Your task to perform on an android device: Open the calendar and show me this week's events? Image 0: 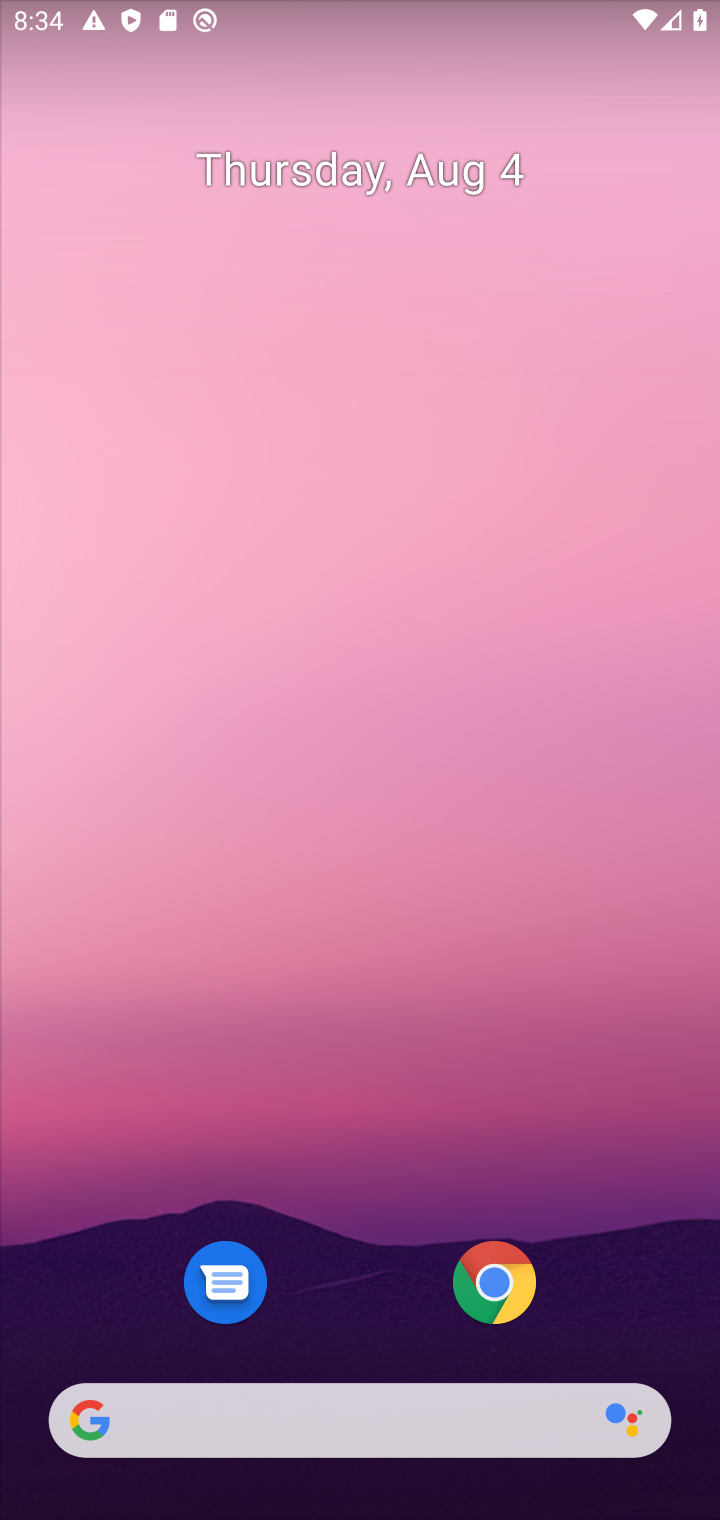
Step 0: drag from (662, 1227) to (568, 514)
Your task to perform on an android device: Open the calendar and show me this week's events? Image 1: 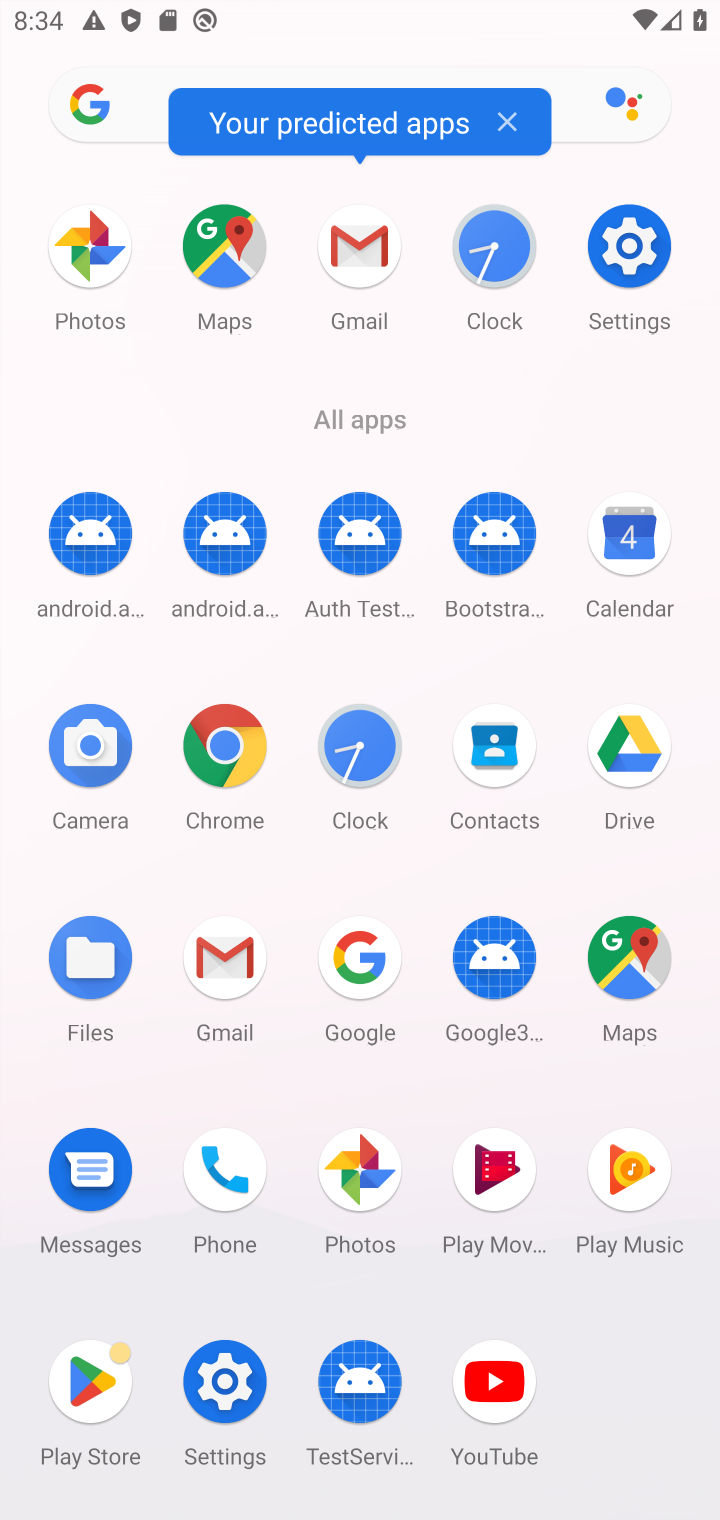
Step 1: click (631, 539)
Your task to perform on an android device: Open the calendar and show me this week's events? Image 2: 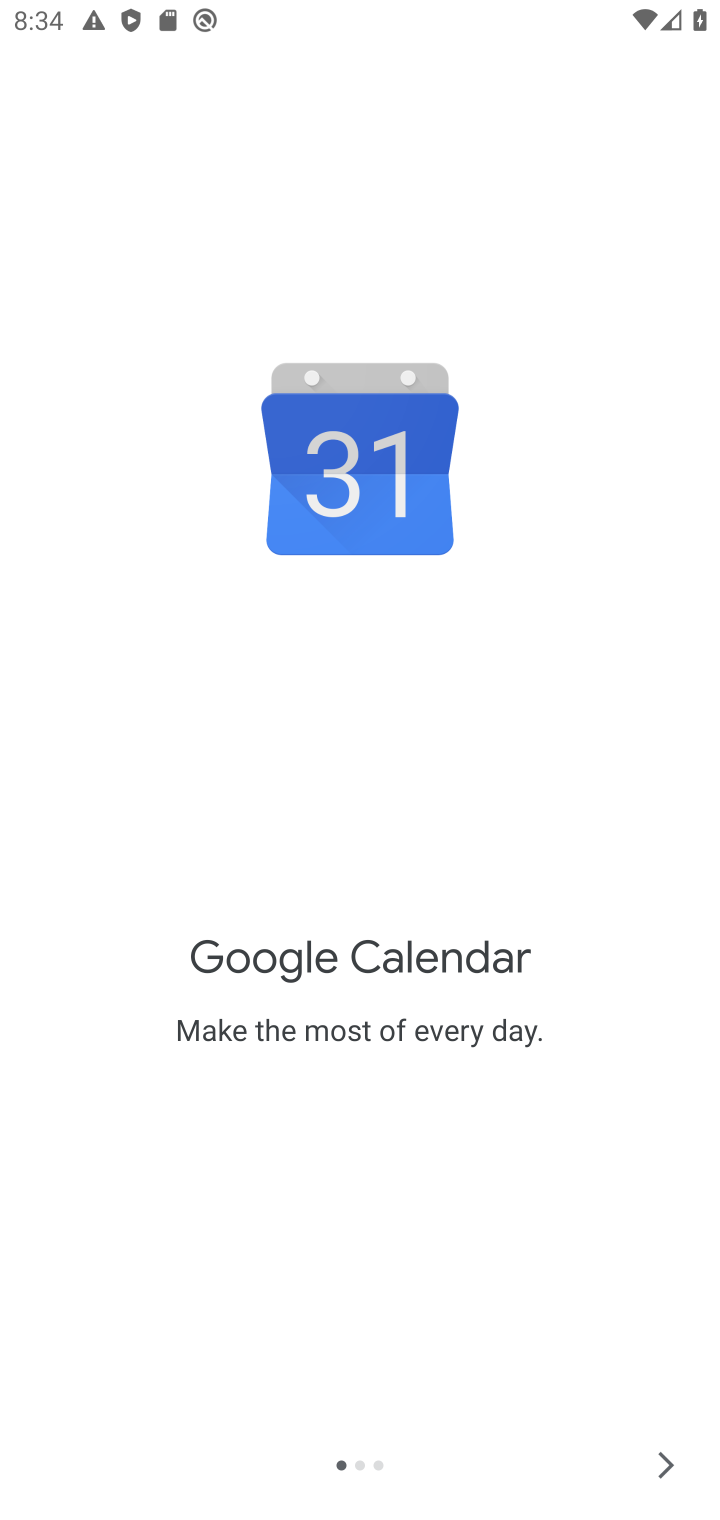
Step 2: click (675, 1473)
Your task to perform on an android device: Open the calendar and show me this week's events? Image 3: 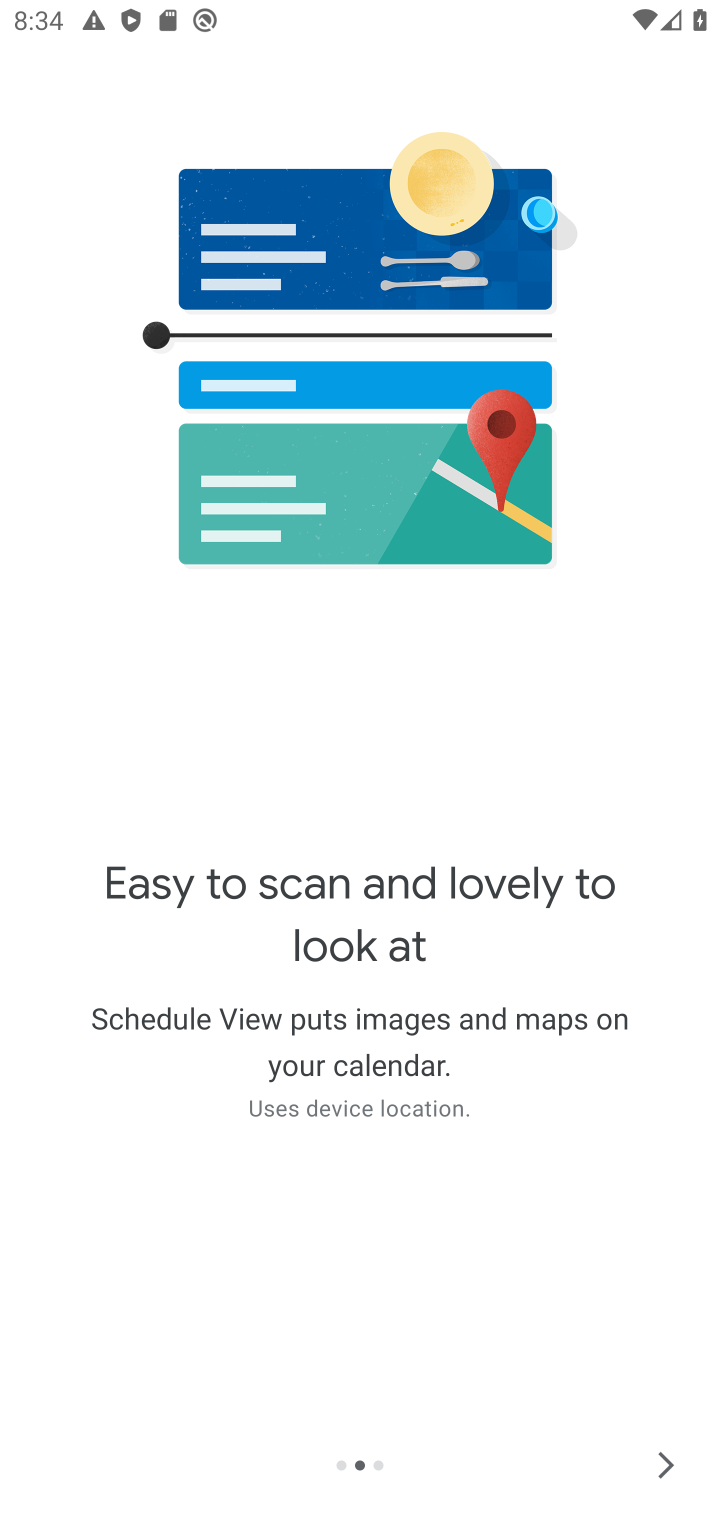
Step 3: click (675, 1473)
Your task to perform on an android device: Open the calendar and show me this week's events? Image 4: 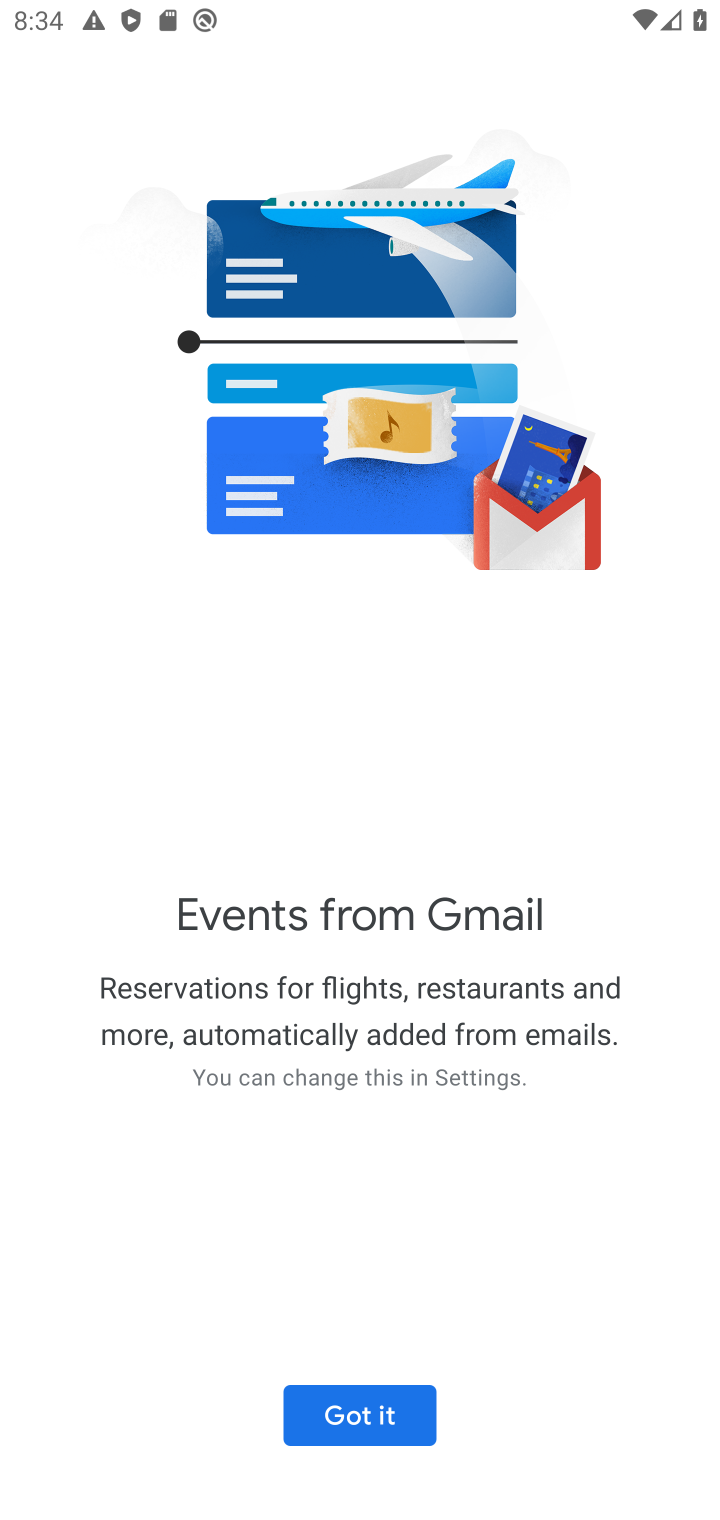
Step 4: click (362, 1407)
Your task to perform on an android device: Open the calendar and show me this week's events? Image 5: 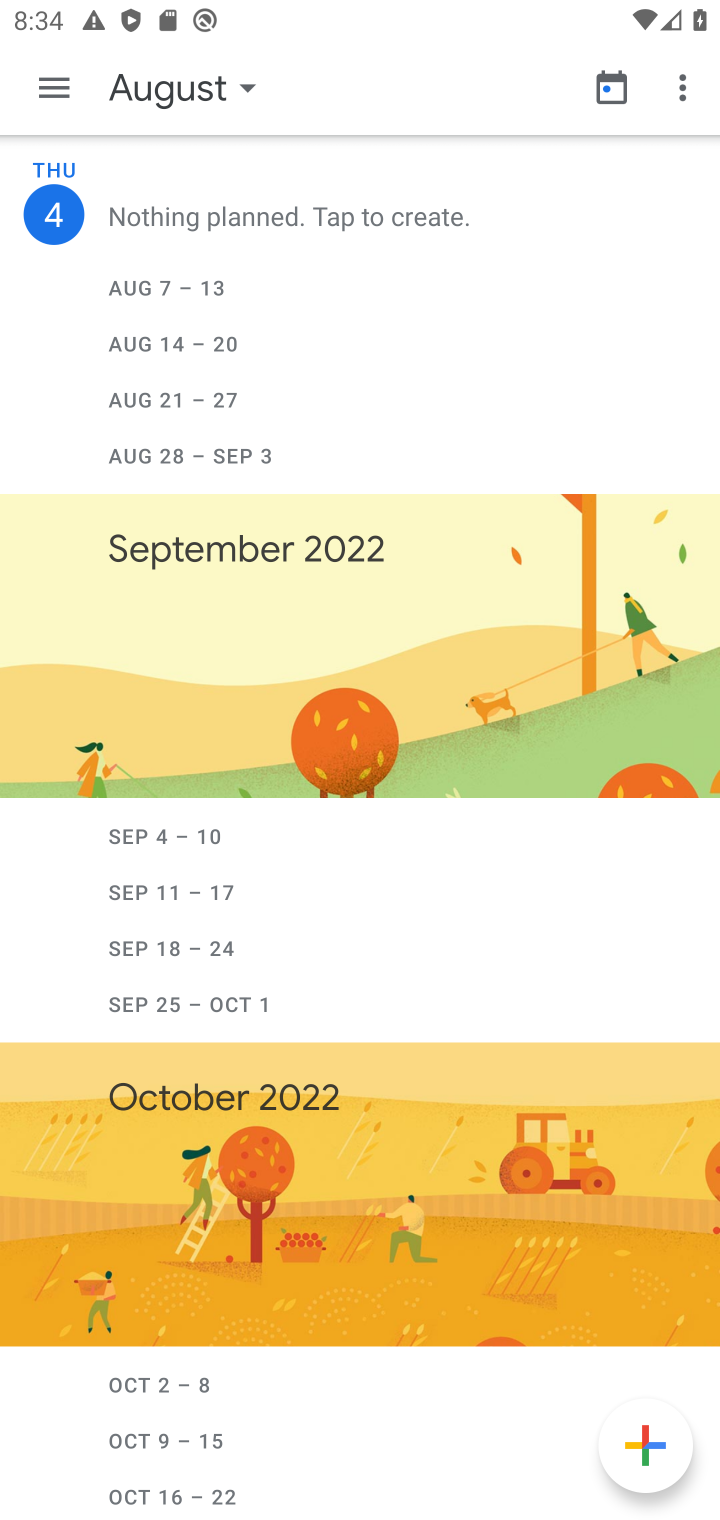
Step 5: click (42, 78)
Your task to perform on an android device: Open the calendar and show me this week's events? Image 6: 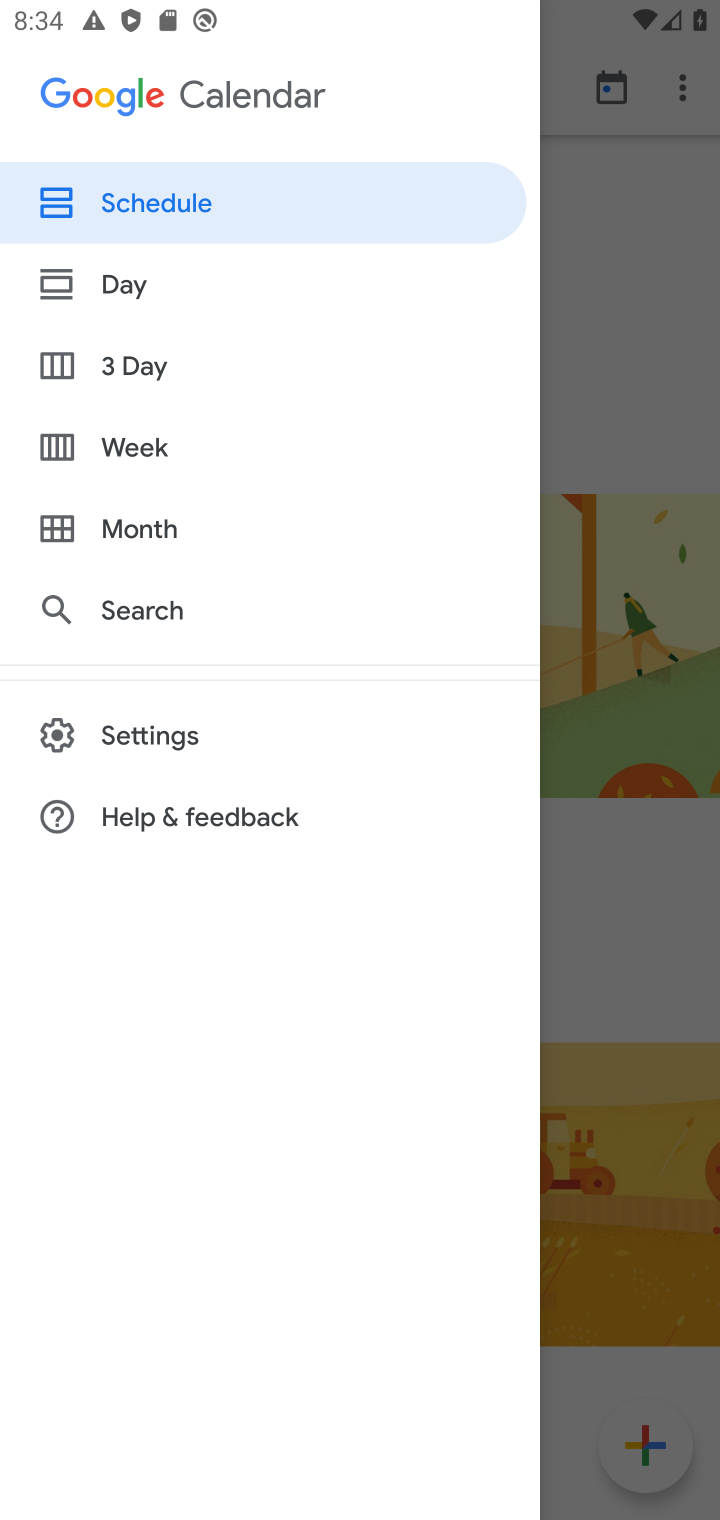
Step 6: click (150, 442)
Your task to perform on an android device: Open the calendar and show me this week's events? Image 7: 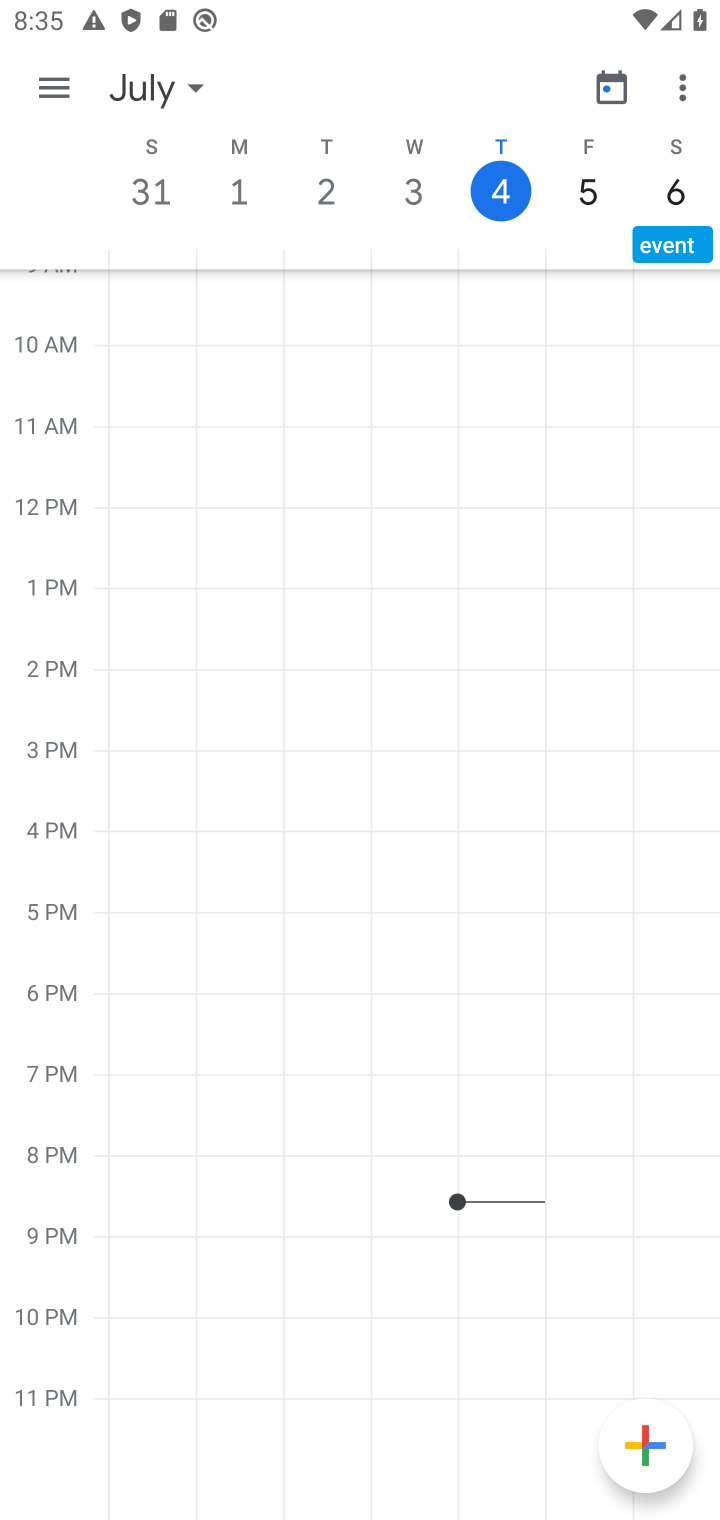
Step 7: task complete